Your task to perform on an android device: all mails in gmail Image 0: 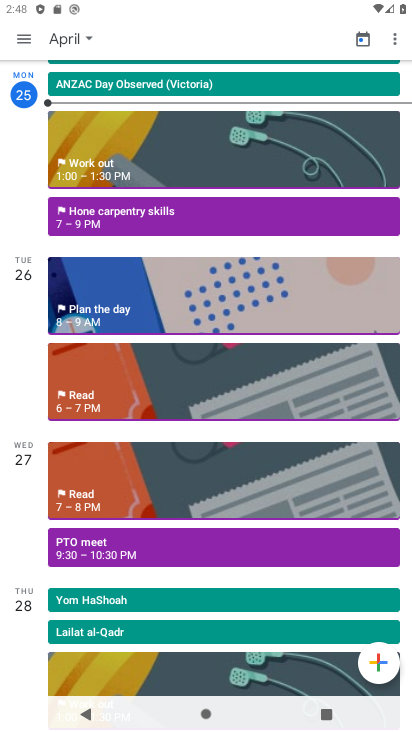
Step 0: press home button
Your task to perform on an android device: all mails in gmail Image 1: 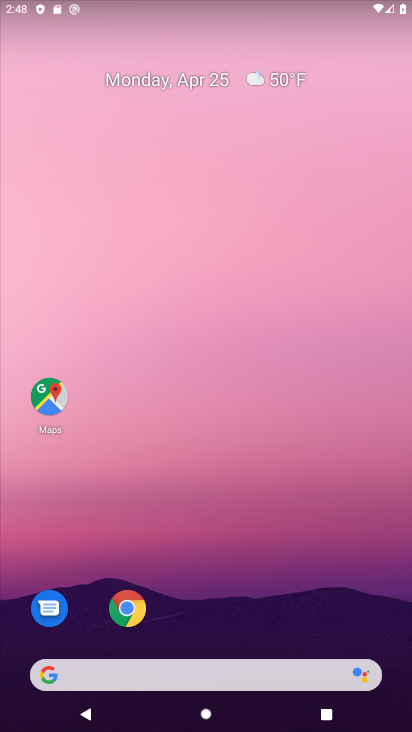
Step 1: drag from (227, 620) to (254, 202)
Your task to perform on an android device: all mails in gmail Image 2: 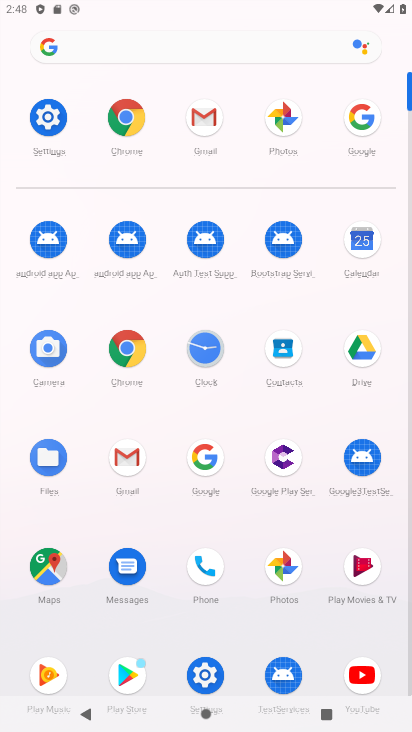
Step 2: click (210, 128)
Your task to perform on an android device: all mails in gmail Image 3: 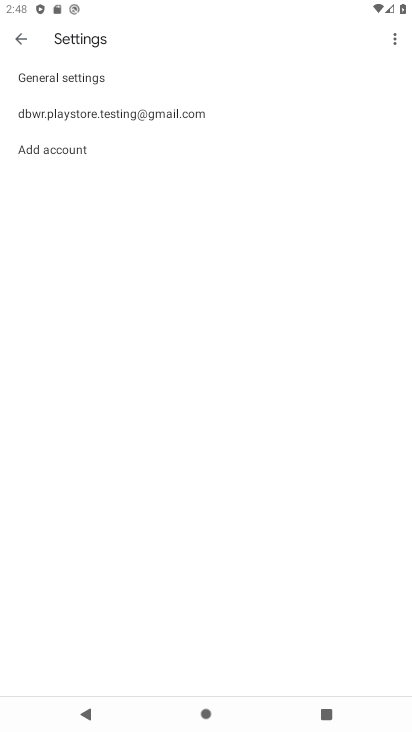
Step 3: click (142, 124)
Your task to perform on an android device: all mails in gmail Image 4: 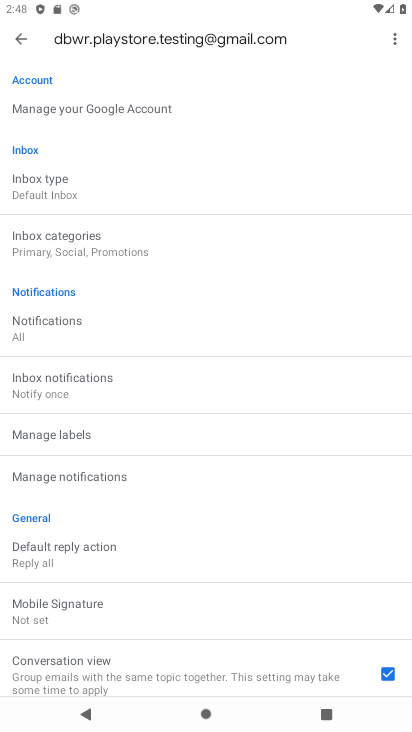
Step 4: drag from (124, 578) to (174, 379)
Your task to perform on an android device: all mails in gmail Image 5: 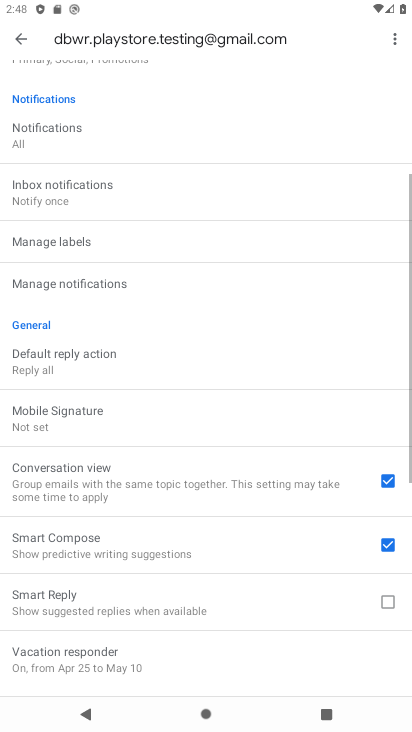
Step 5: click (21, 31)
Your task to perform on an android device: all mails in gmail Image 6: 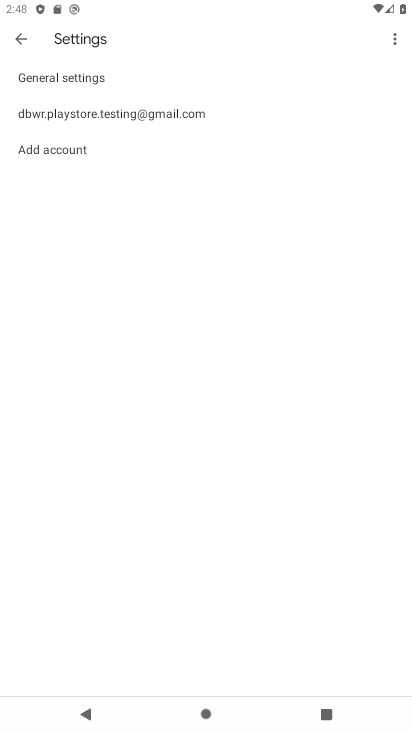
Step 6: click (21, 31)
Your task to perform on an android device: all mails in gmail Image 7: 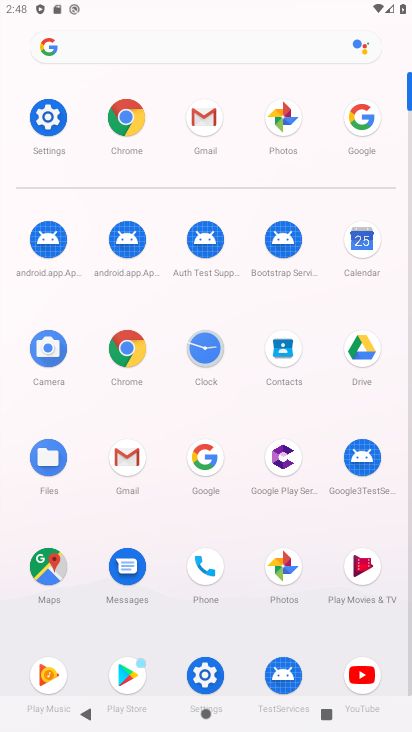
Step 7: click (199, 120)
Your task to perform on an android device: all mails in gmail Image 8: 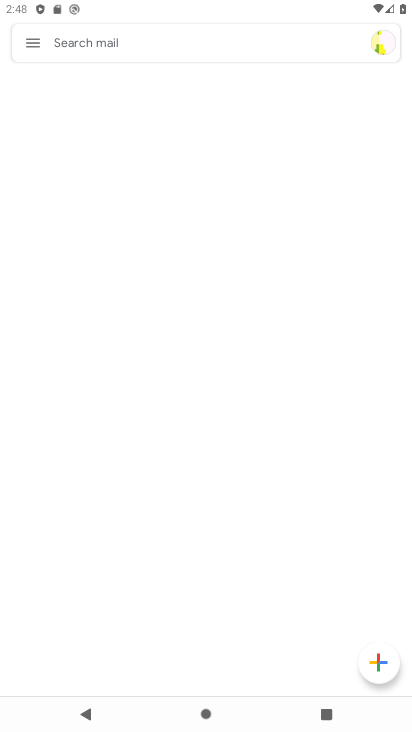
Step 8: click (26, 40)
Your task to perform on an android device: all mails in gmail Image 9: 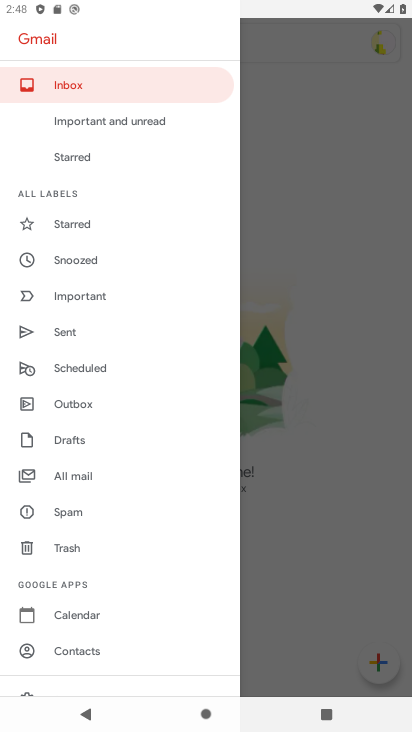
Step 9: click (80, 466)
Your task to perform on an android device: all mails in gmail Image 10: 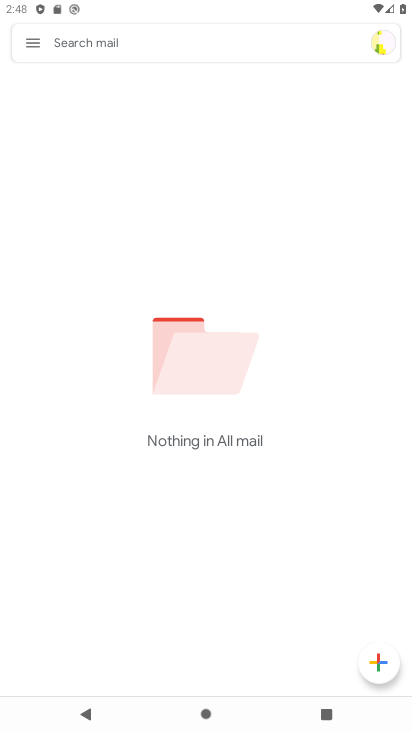
Step 10: task complete